Your task to perform on an android device: check google app version Image 0: 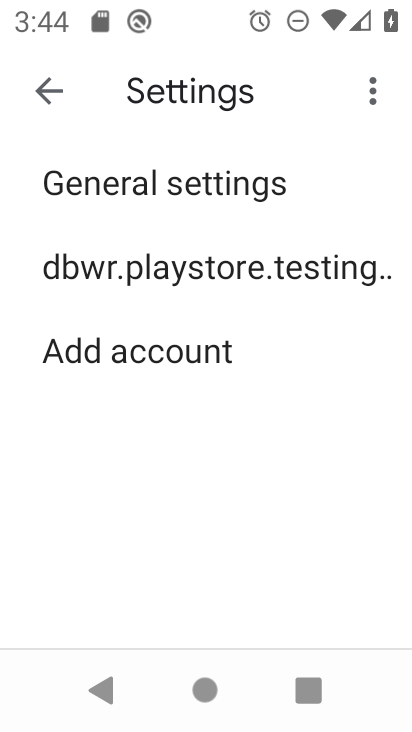
Step 0: press home button
Your task to perform on an android device: check google app version Image 1: 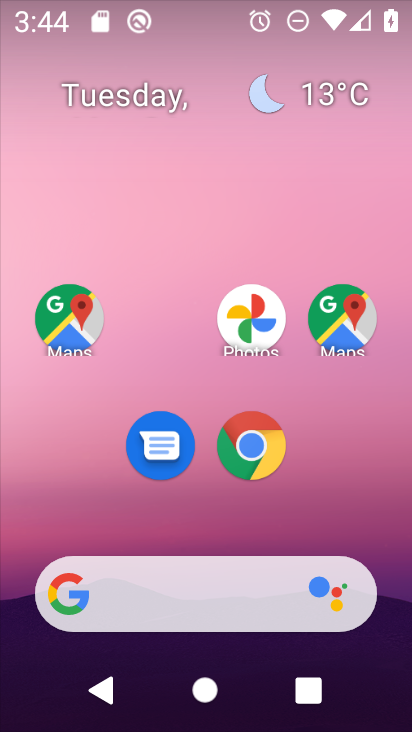
Step 1: drag from (386, 514) to (384, 170)
Your task to perform on an android device: check google app version Image 2: 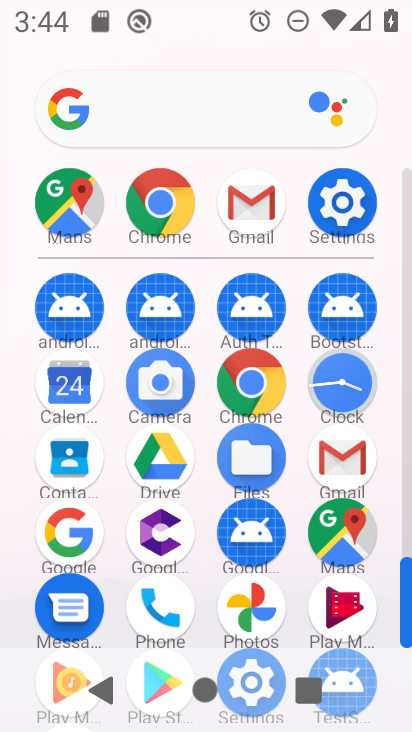
Step 2: click (76, 548)
Your task to perform on an android device: check google app version Image 3: 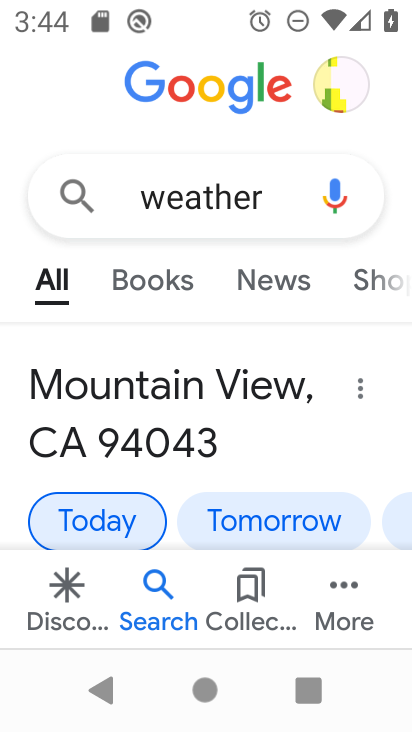
Step 3: click (348, 599)
Your task to perform on an android device: check google app version Image 4: 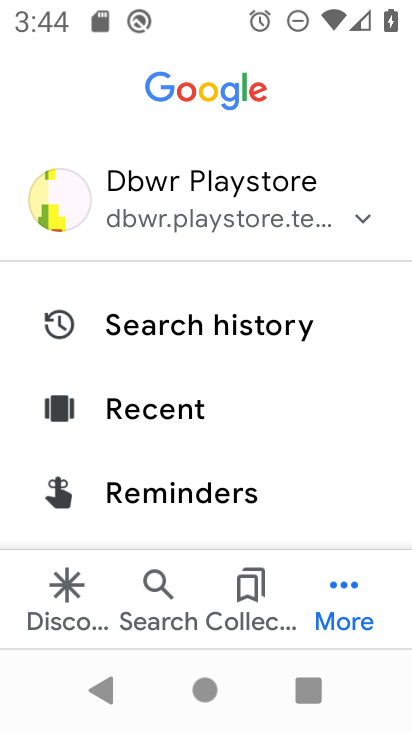
Step 4: drag from (337, 512) to (339, 434)
Your task to perform on an android device: check google app version Image 5: 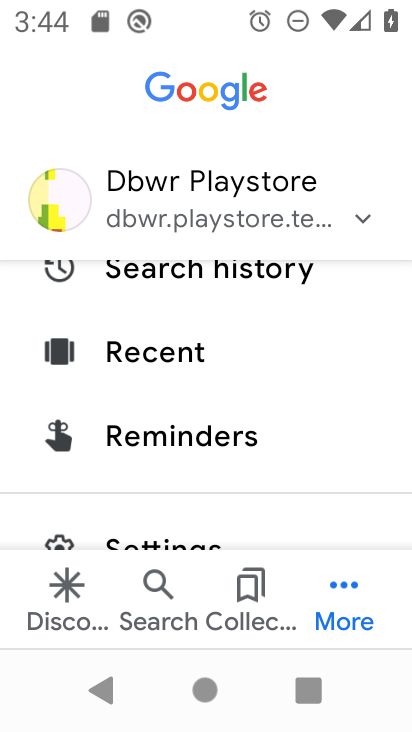
Step 5: drag from (335, 516) to (335, 408)
Your task to perform on an android device: check google app version Image 6: 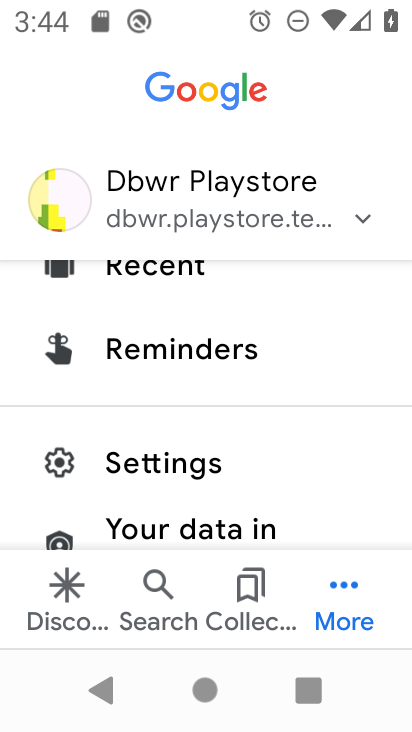
Step 6: drag from (333, 512) to (336, 376)
Your task to perform on an android device: check google app version Image 7: 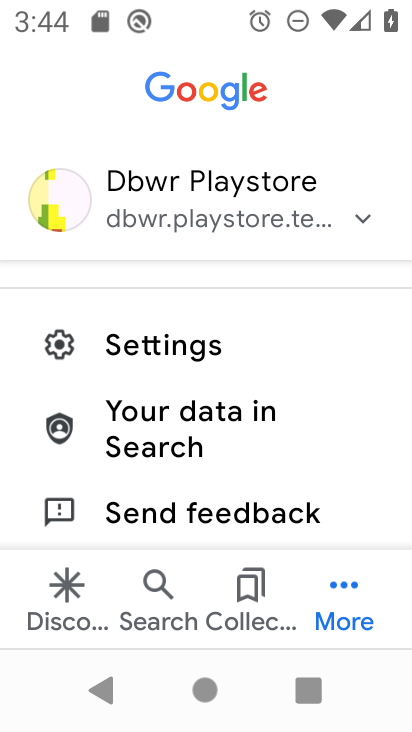
Step 7: drag from (332, 480) to (332, 354)
Your task to perform on an android device: check google app version Image 8: 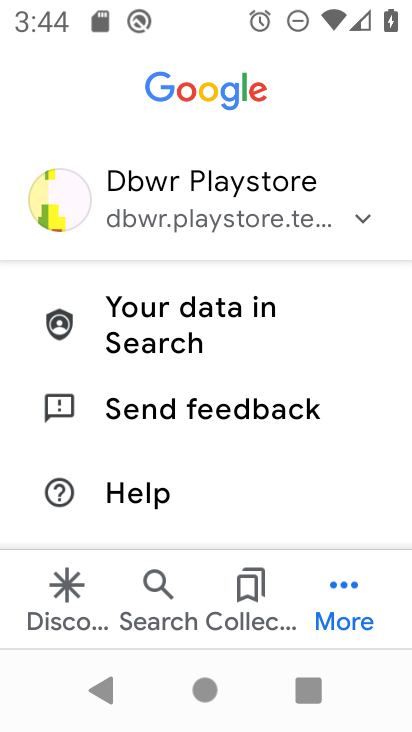
Step 8: drag from (331, 335) to (331, 440)
Your task to perform on an android device: check google app version Image 9: 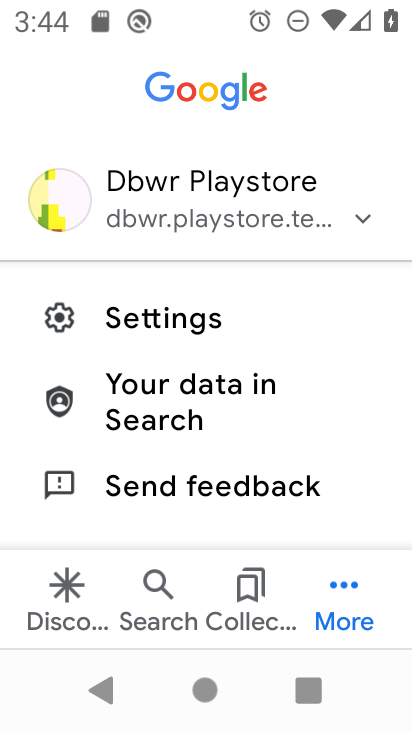
Step 9: click (239, 350)
Your task to perform on an android device: check google app version Image 10: 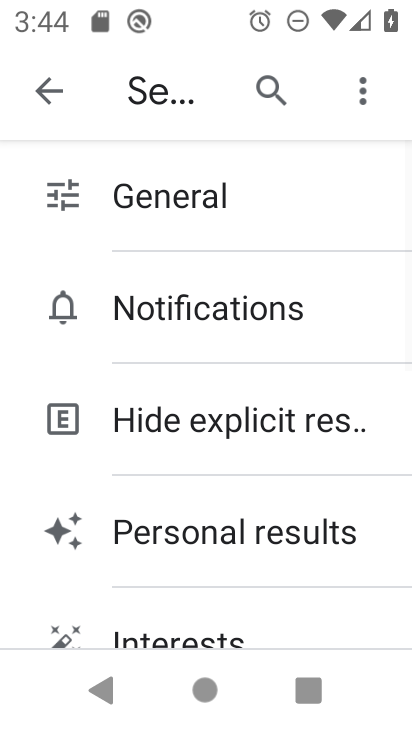
Step 10: drag from (311, 507) to (316, 438)
Your task to perform on an android device: check google app version Image 11: 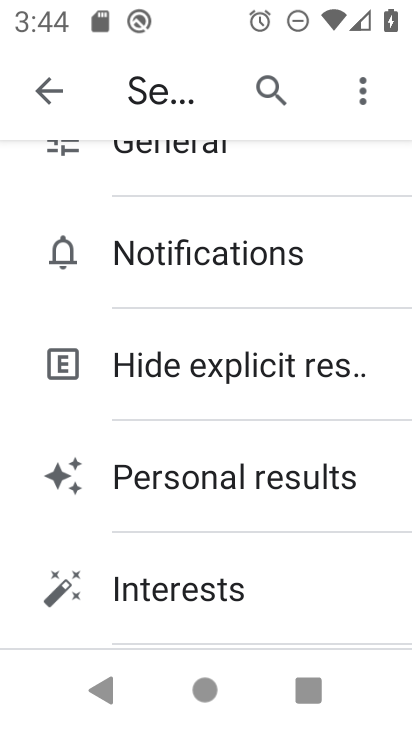
Step 11: drag from (326, 555) to (334, 468)
Your task to perform on an android device: check google app version Image 12: 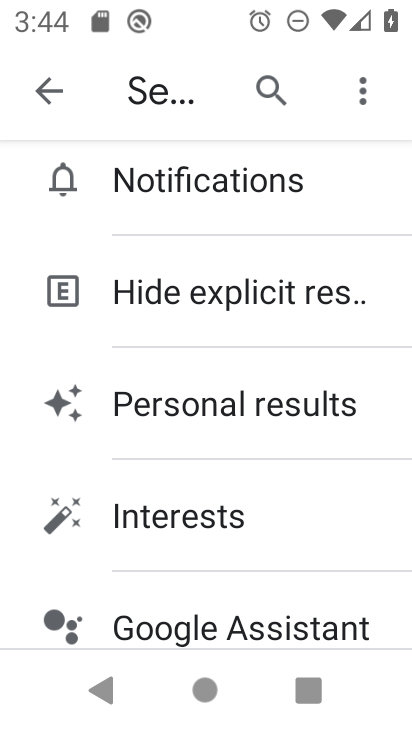
Step 12: drag from (334, 542) to (341, 491)
Your task to perform on an android device: check google app version Image 13: 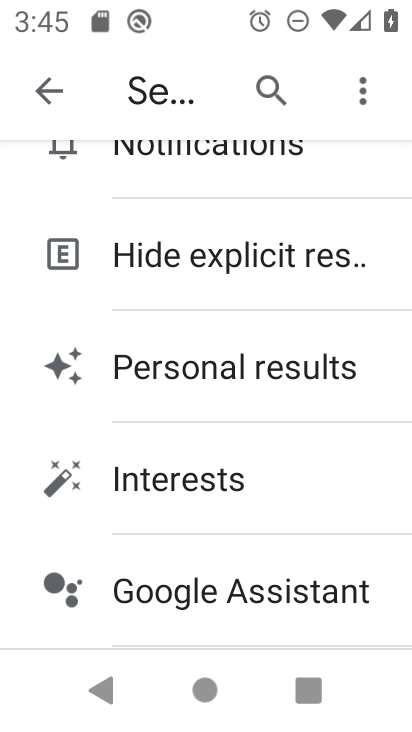
Step 13: drag from (332, 566) to (339, 498)
Your task to perform on an android device: check google app version Image 14: 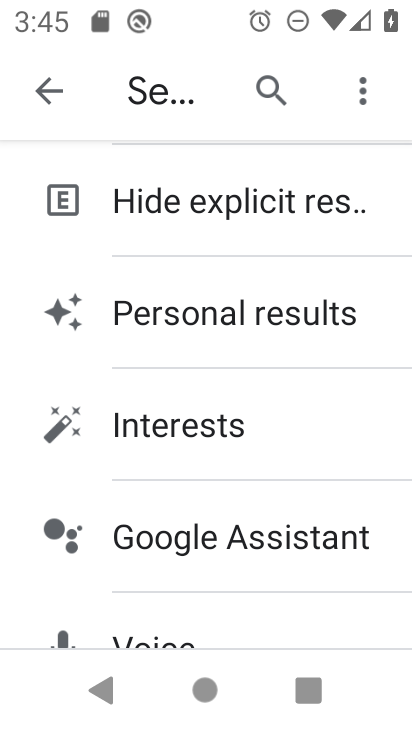
Step 14: drag from (329, 582) to (331, 492)
Your task to perform on an android device: check google app version Image 15: 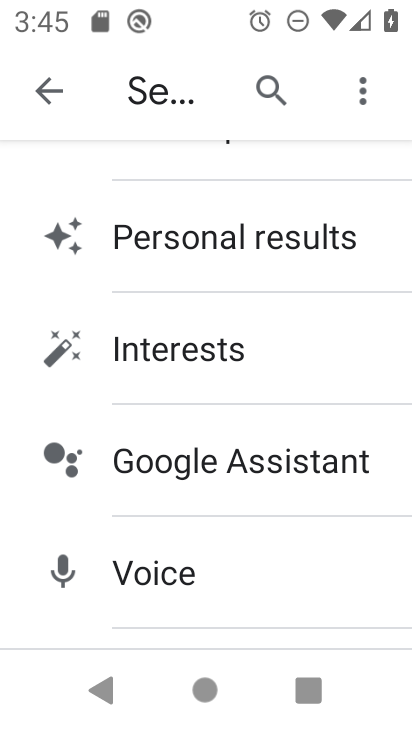
Step 15: drag from (325, 579) to (325, 459)
Your task to perform on an android device: check google app version Image 16: 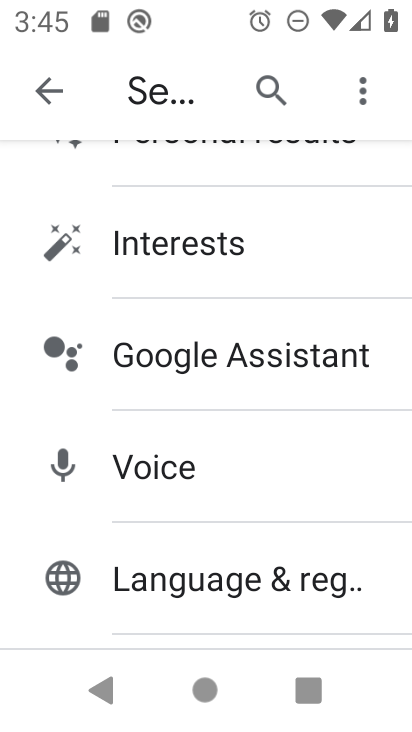
Step 16: drag from (304, 596) to (316, 456)
Your task to perform on an android device: check google app version Image 17: 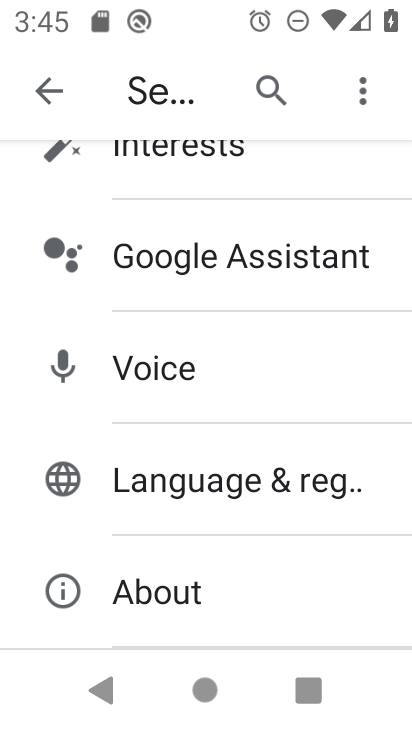
Step 17: click (292, 588)
Your task to perform on an android device: check google app version Image 18: 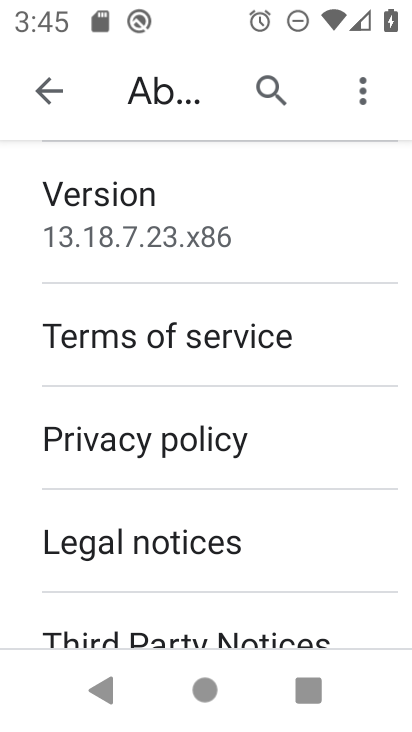
Step 18: task complete